Your task to perform on an android device: Open display settings Image 0: 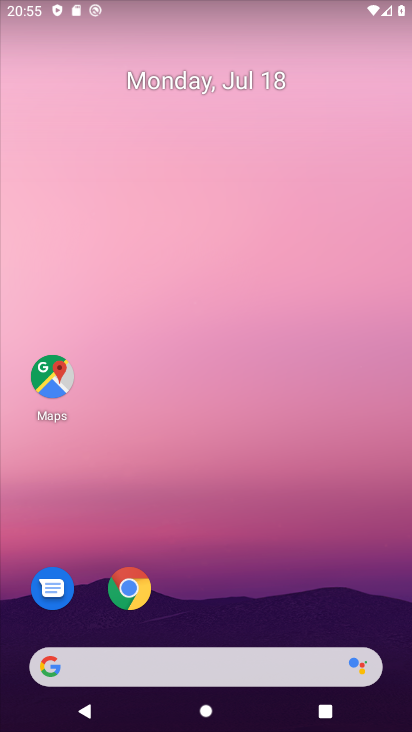
Step 0: press home button
Your task to perform on an android device: Open display settings Image 1: 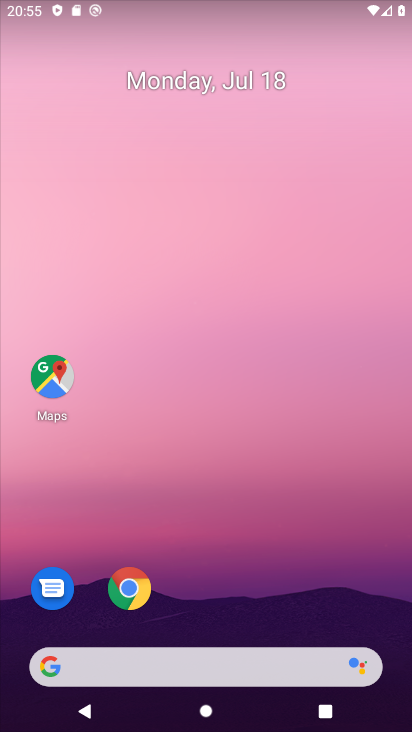
Step 1: drag from (215, 664) to (352, 82)
Your task to perform on an android device: Open display settings Image 2: 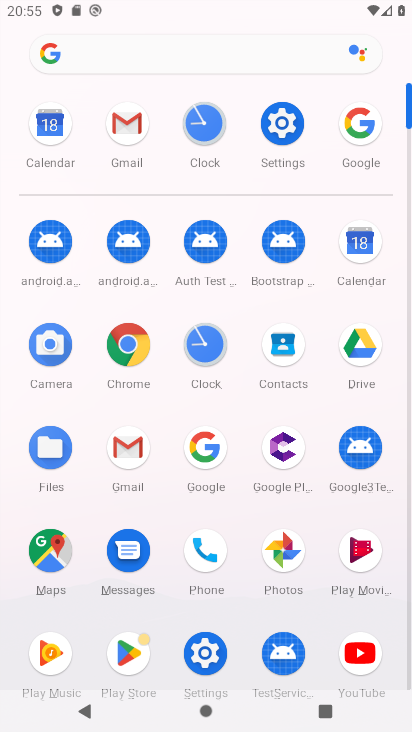
Step 2: click (284, 124)
Your task to perform on an android device: Open display settings Image 3: 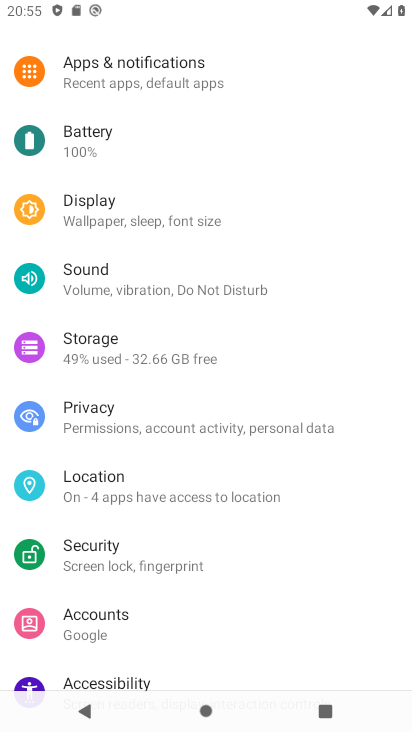
Step 3: click (179, 224)
Your task to perform on an android device: Open display settings Image 4: 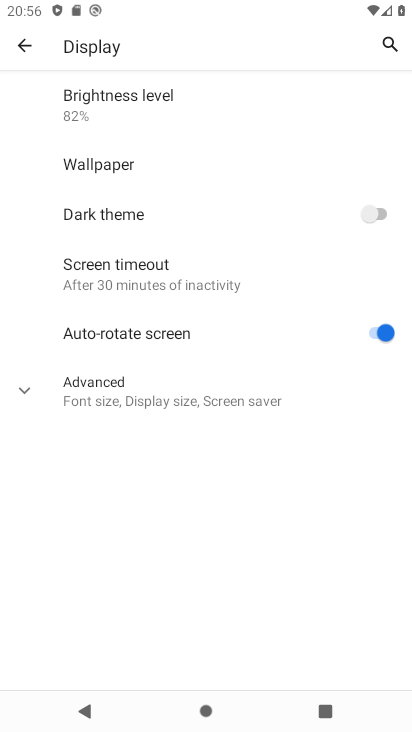
Step 4: task complete